Your task to perform on an android device: What's on my calendar tomorrow? Image 0: 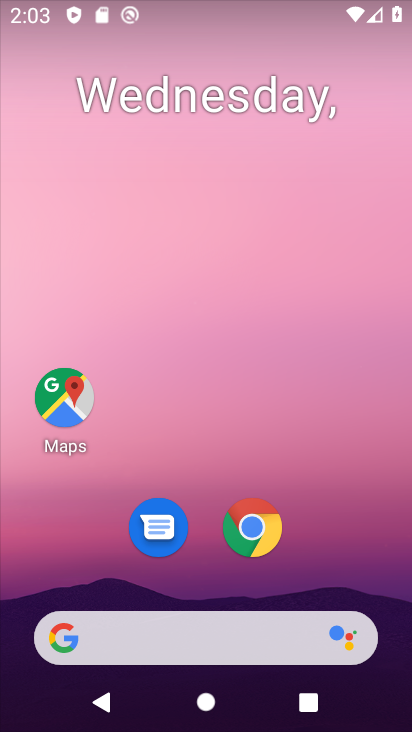
Step 0: drag from (333, 536) to (268, 79)
Your task to perform on an android device: What's on my calendar tomorrow? Image 1: 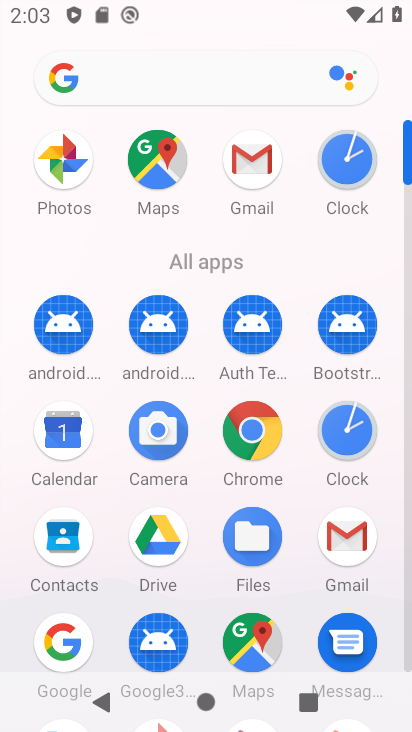
Step 1: click (63, 433)
Your task to perform on an android device: What's on my calendar tomorrow? Image 2: 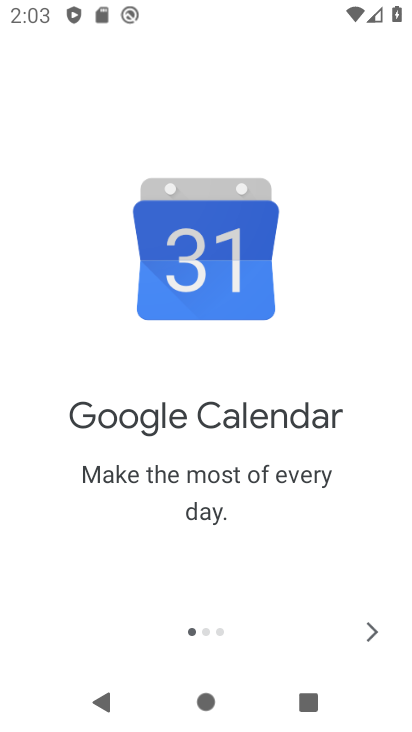
Step 2: click (382, 636)
Your task to perform on an android device: What's on my calendar tomorrow? Image 3: 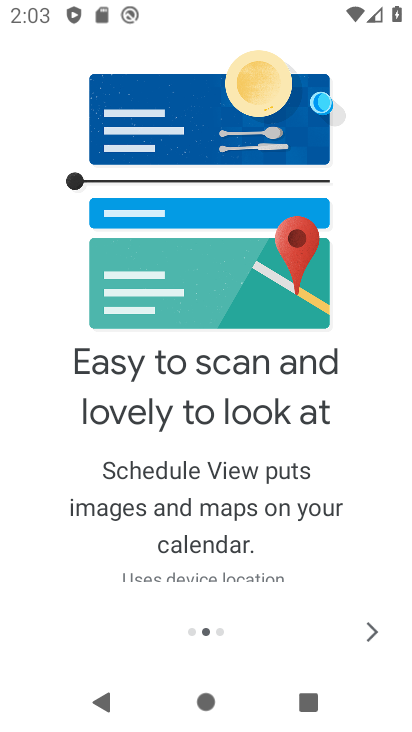
Step 3: click (375, 630)
Your task to perform on an android device: What's on my calendar tomorrow? Image 4: 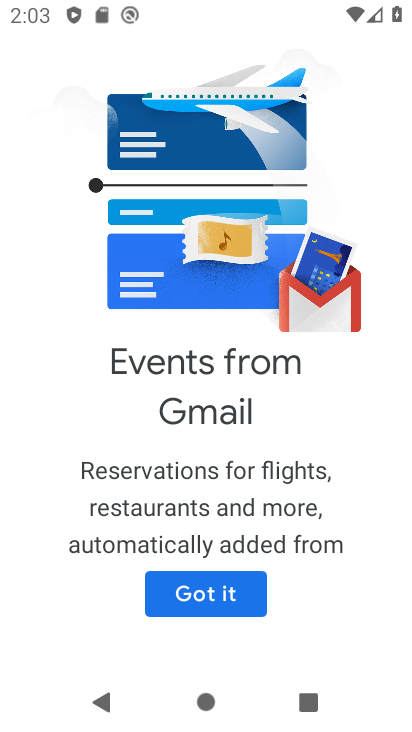
Step 4: click (213, 595)
Your task to perform on an android device: What's on my calendar tomorrow? Image 5: 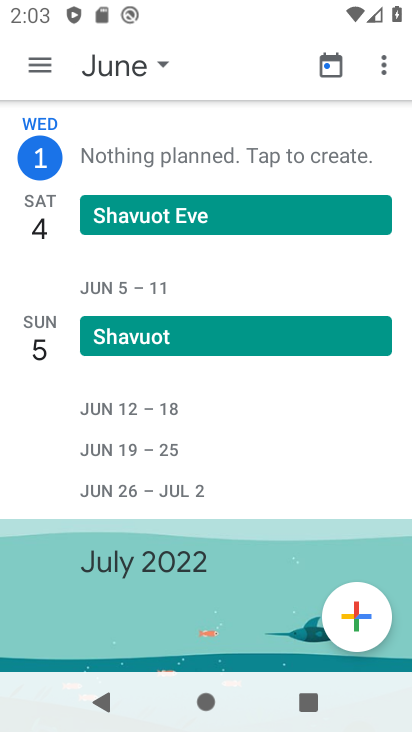
Step 5: click (169, 63)
Your task to perform on an android device: What's on my calendar tomorrow? Image 6: 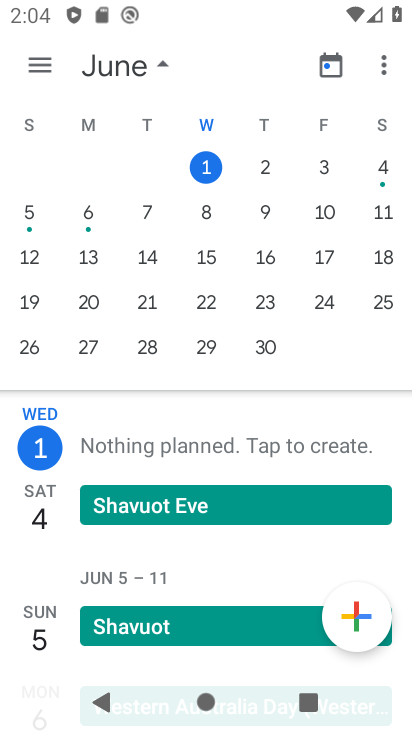
Step 6: click (260, 174)
Your task to perform on an android device: What's on my calendar tomorrow? Image 7: 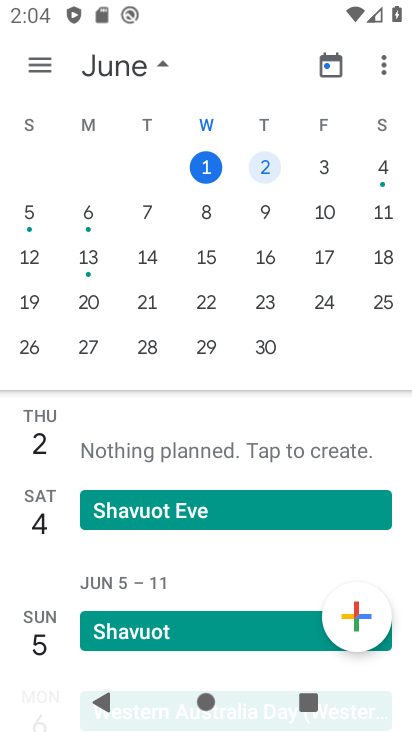
Step 7: click (34, 59)
Your task to perform on an android device: What's on my calendar tomorrow? Image 8: 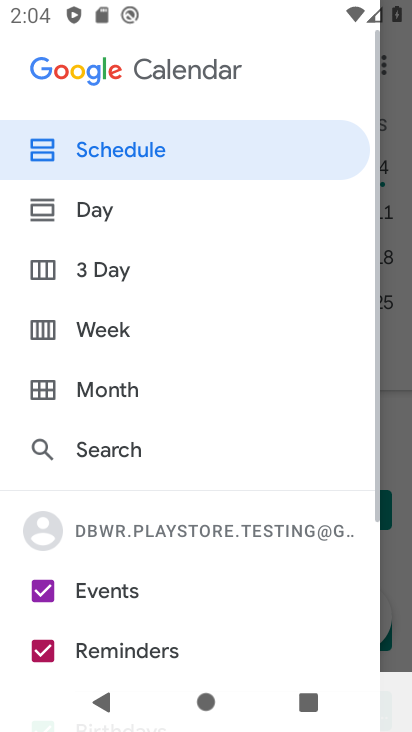
Step 8: click (95, 203)
Your task to perform on an android device: What's on my calendar tomorrow? Image 9: 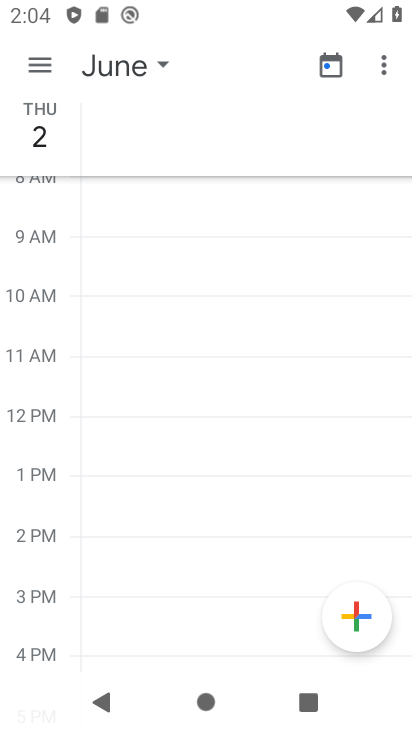
Step 9: task complete